Your task to perform on an android device: turn off sleep mode Image 0: 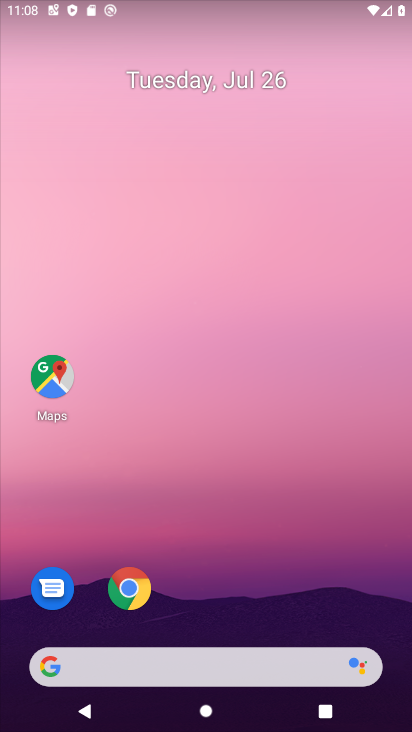
Step 0: drag from (197, 491) to (197, 168)
Your task to perform on an android device: turn off sleep mode Image 1: 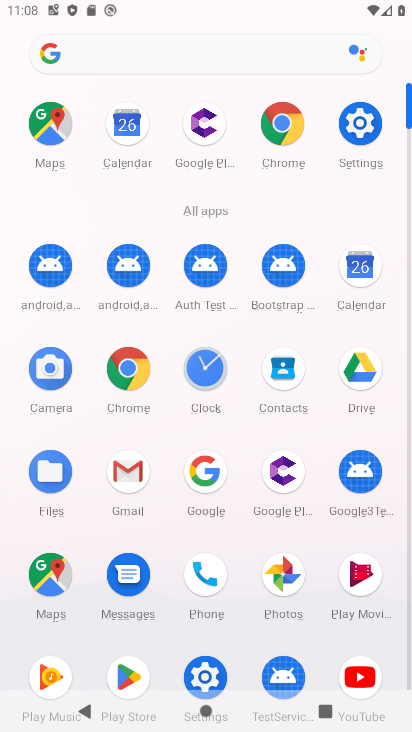
Step 1: click (362, 138)
Your task to perform on an android device: turn off sleep mode Image 2: 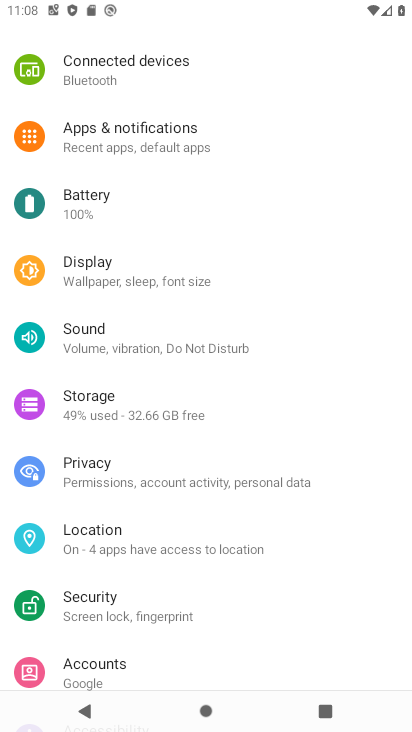
Step 2: click (362, 138)
Your task to perform on an android device: turn off sleep mode Image 3: 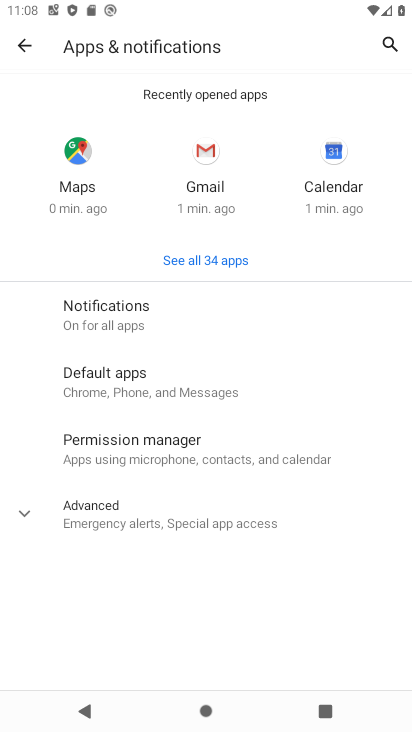
Step 3: task complete